Your task to perform on an android device: open the mobile data screen to see how much data has been used Image 0: 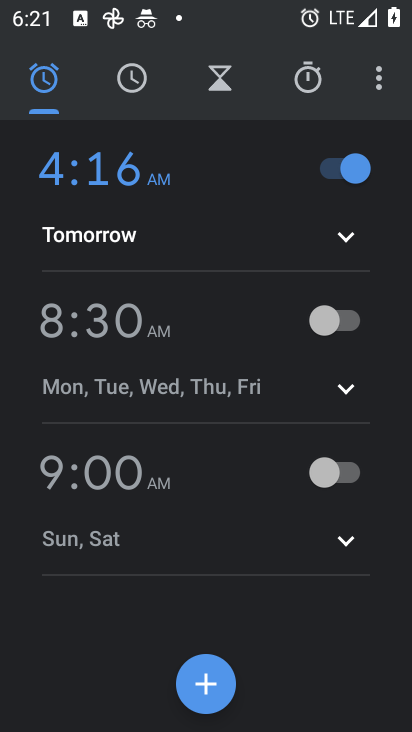
Step 0: press home button
Your task to perform on an android device: open the mobile data screen to see how much data has been used Image 1: 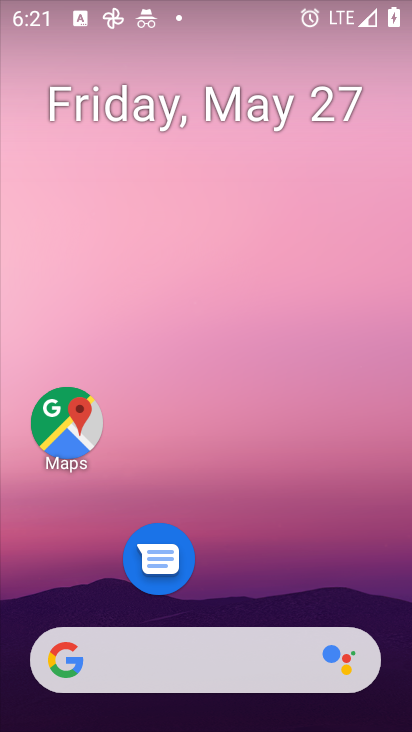
Step 1: drag from (271, 683) to (308, 129)
Your task to perform on an android device: open the mobile data screen to see how much data has been used Image 2: 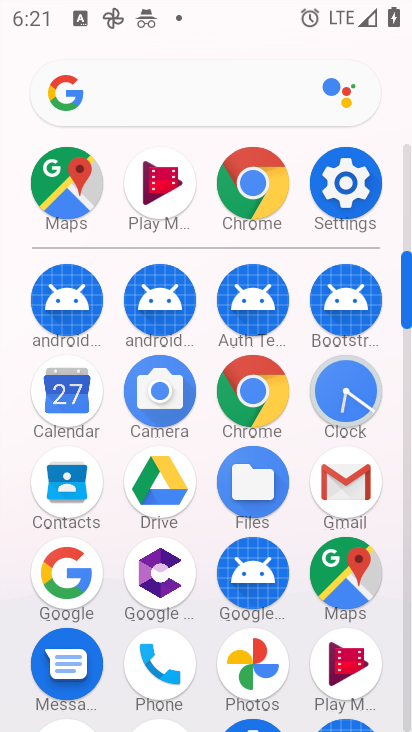
Step 2: click (352, 210)
Your task to perform on an android device: open the mobile data screen to see how much data has been used Image 3: 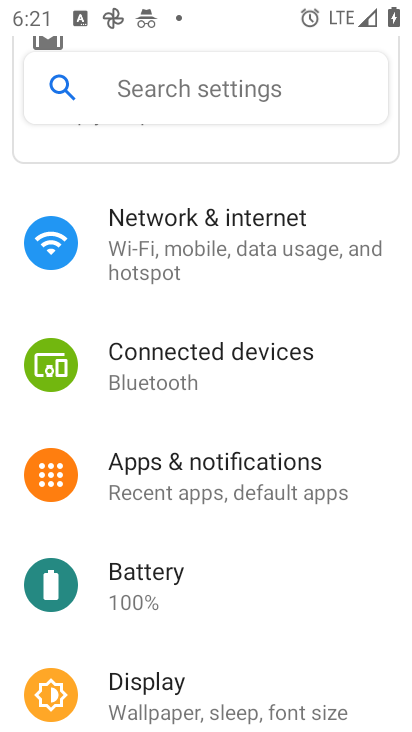
Step 3: drag from (232, 235) to (239, 292)
Your task to perform on an android device: open the mobile data screen to see how much data has been used Image 4: 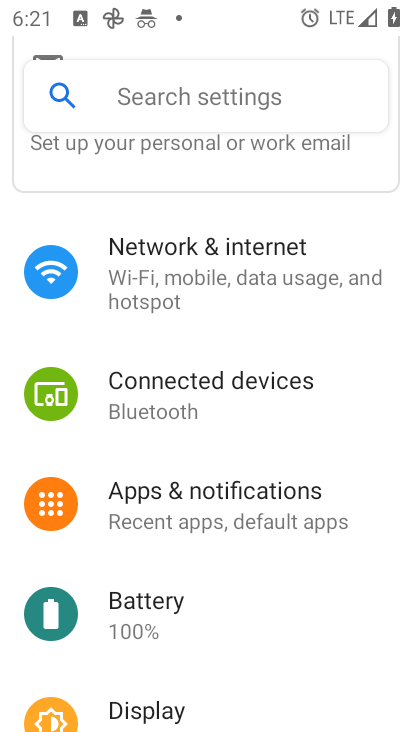
Step 4: click (239, 292)
Your task to perform on an android device: open the mobile data screen to see how much data has been used Image 5: 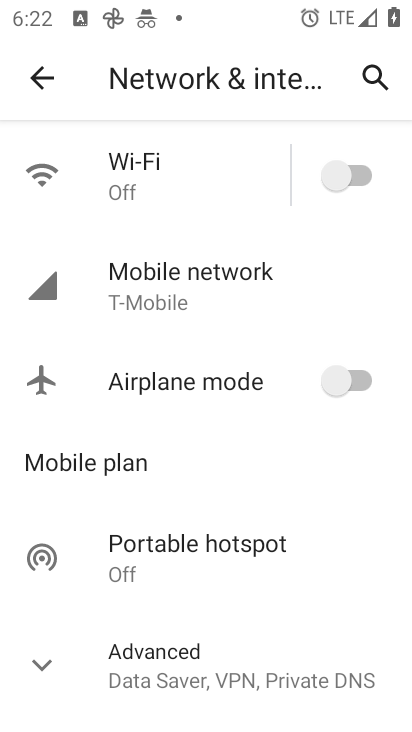
Step 5: task complete